Your task to perform on an android device: remove spam from my inbox in the gmail app Image 0: 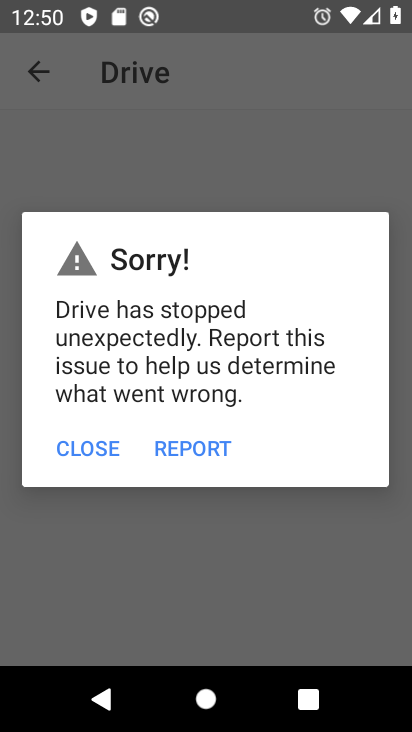
Step 0: press home button
Your task to perform on an android device: remove spam from my inbox in the gmail app Image 1: 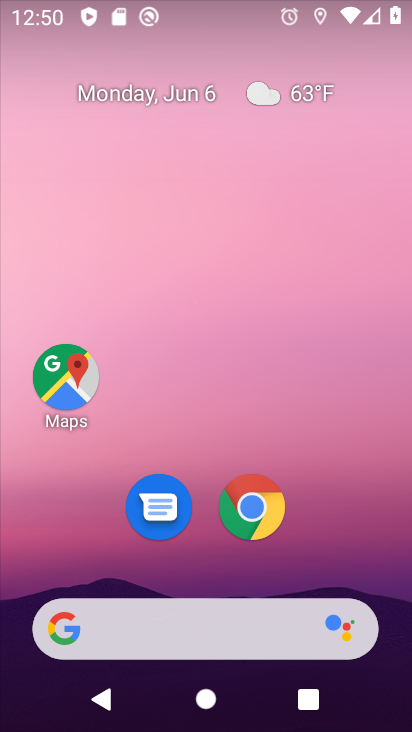
Step 1: drag from (327, 542) to (356, 2)
Your task to perform on an android device: remove spam from my inbox in the gmail app Image 2: 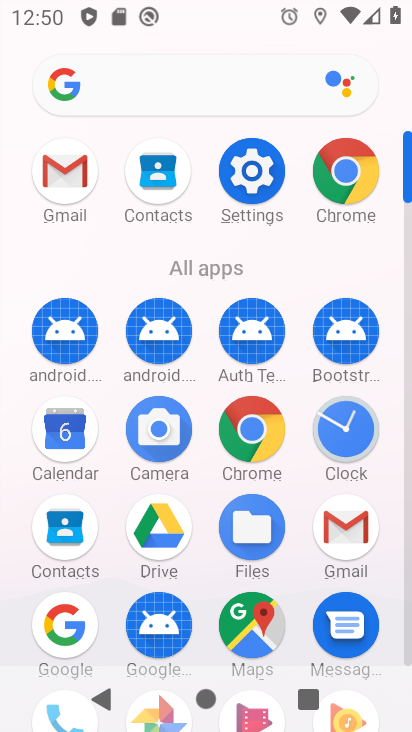
Step 2: click (49, 170)
Your task to perform on an android device: remove spam from my inbox in the gmail app Image 3: 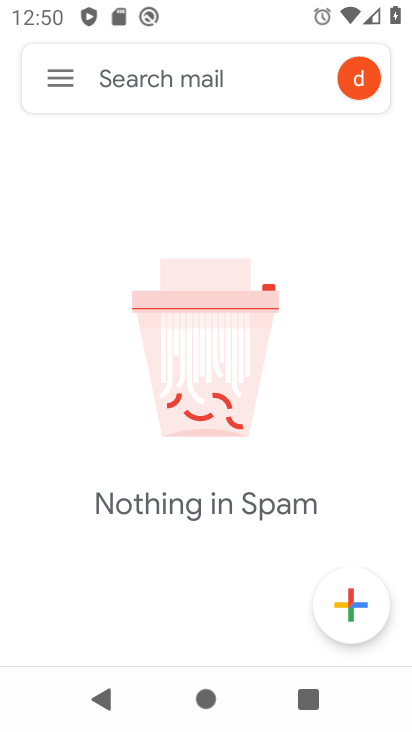
Step 3: click (57, 78)
Your task to perform on an android device: remove spam from my inbox in the gmail app Image 4: 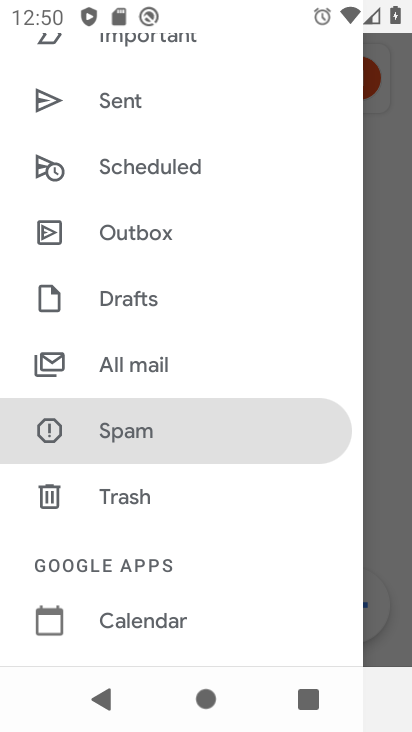
Step 4: click (145, 353)
Your task to perform on an android device: remove spam from my inbox in the gmail app Image 5: 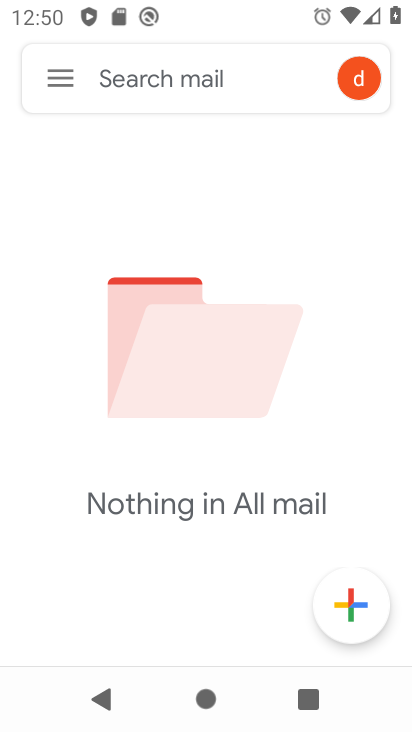
Step 5: task complete